Your task to perform on an android device: turn on location history Image 0: 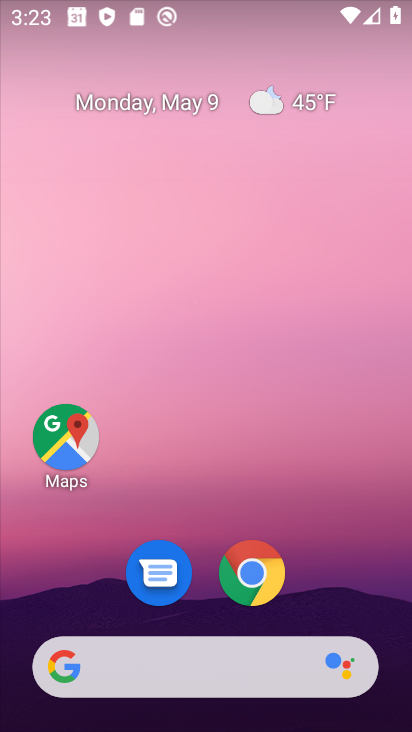
Step 0: drag from (263, 612) to (380, 210)
Your task to perform on an android device: turn on location history Image 1: 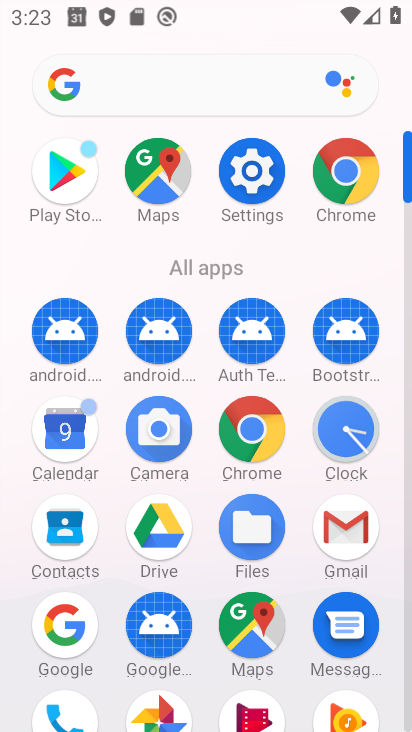
Step 1: click (236, 628)
Your task to perform on an android device: turn on location history Image 2: 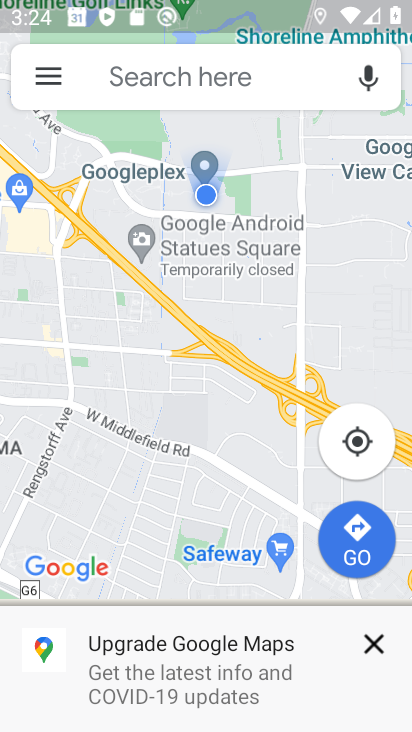
Step 2: click (46, 70)
Your task to perform on an android device: turn on location history Image 3: 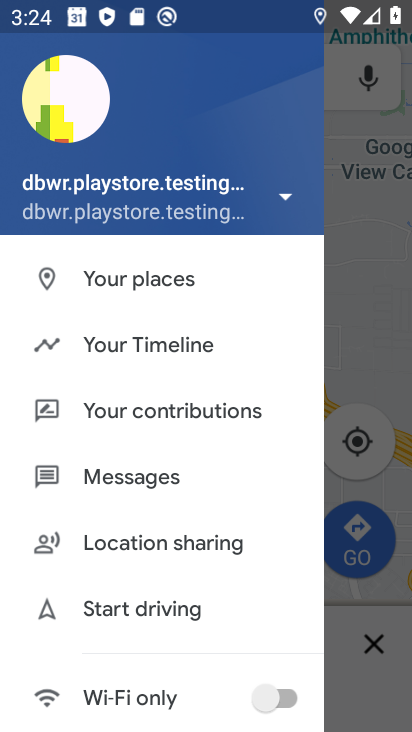
Step 3: drag from (172, 644) to (270, 250)
Your task to perform on an android device: turn on location history Image 4: 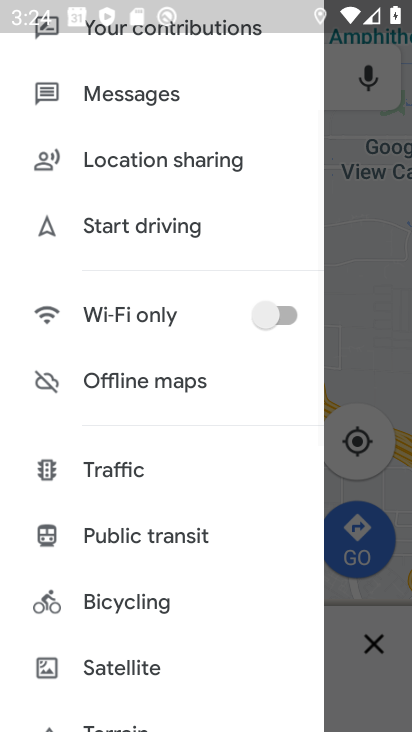
Step 4: drag from (125, 663) to (230, 269)
Your task to perform on an android device: turn on location history Image 5: 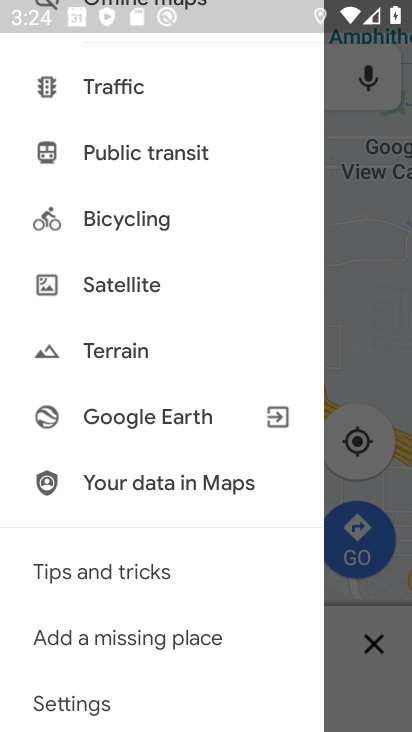
Step 5: click (90, 710)
Your task to perform on an android device: turn on location history Image 6: 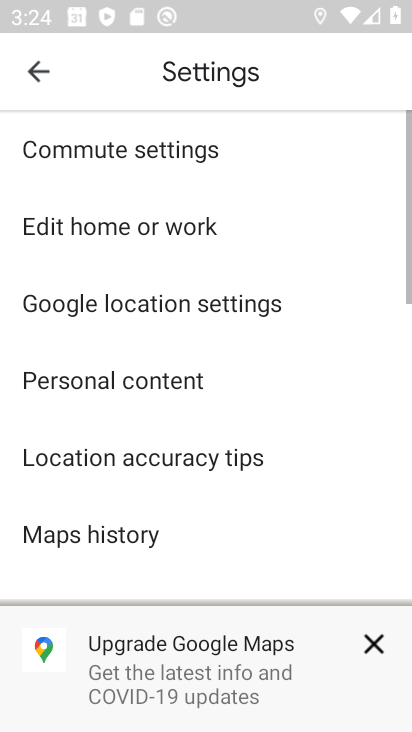
Step 6: drag from (167, 519) to (257, 199)
Your task to perform on an android device: turn on location history Image 7: 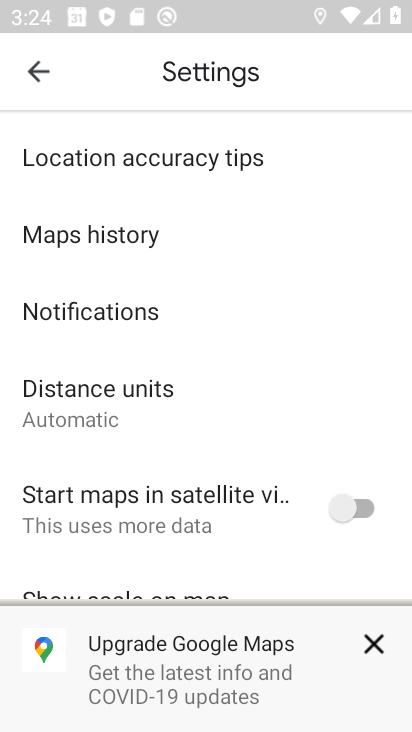
Step 7: click (376, 654)
Your task to perform on an android device: turn on location history Image 8: 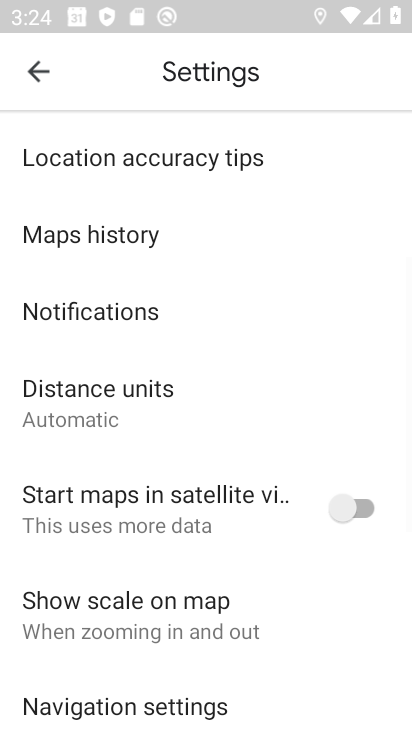
Step 8: click (50, 64)
Your task to perform on an android device: turn on location history Image 9: 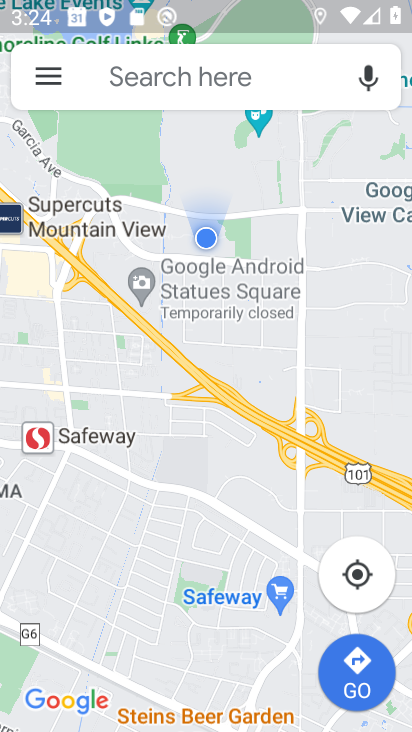
Step 9: click (50, 64)
Your task to perform on an android device: turn on location history Image 10: 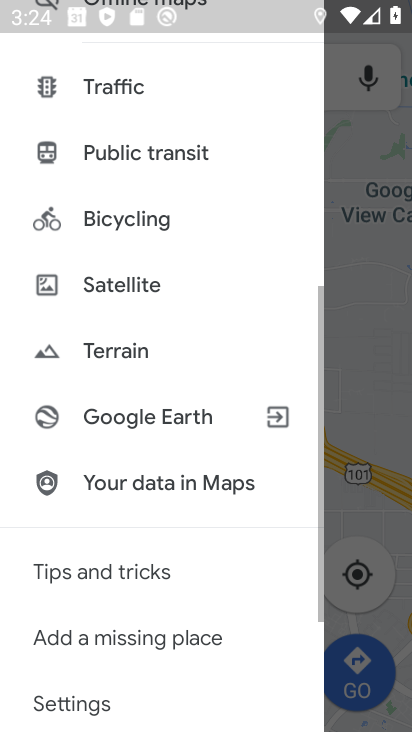
Step 10: drag from (171, 136) to (131, 731)
Your task to perform on an android device: turn on location history Image 11: 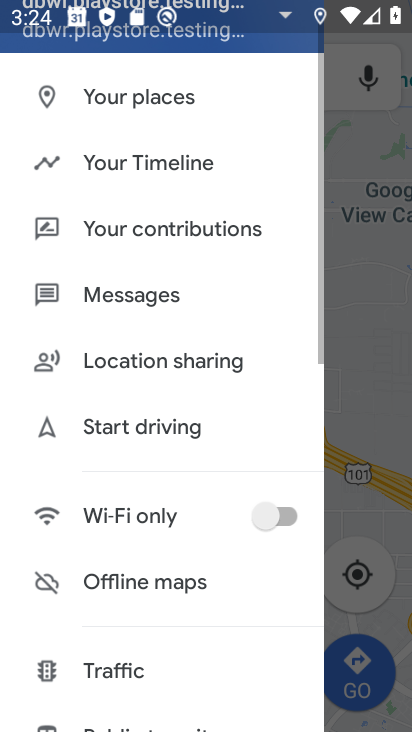
Step 11: click (139, 148)
Your task to perform on an android device: turn on location history Image 12: 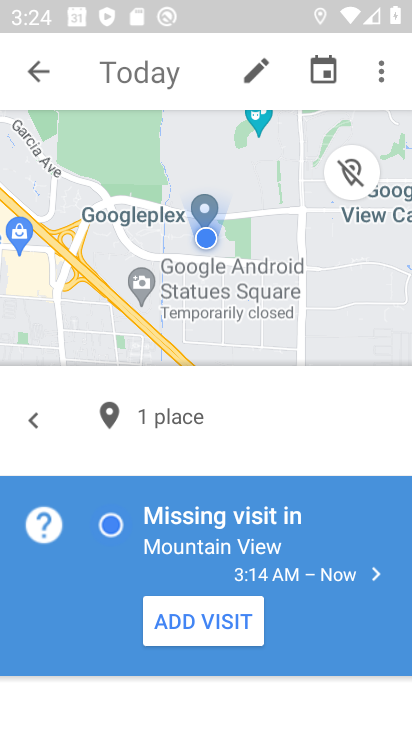
Step 12: click (386, 72)
Your task to perform on an android device: turn on location history Image 13: 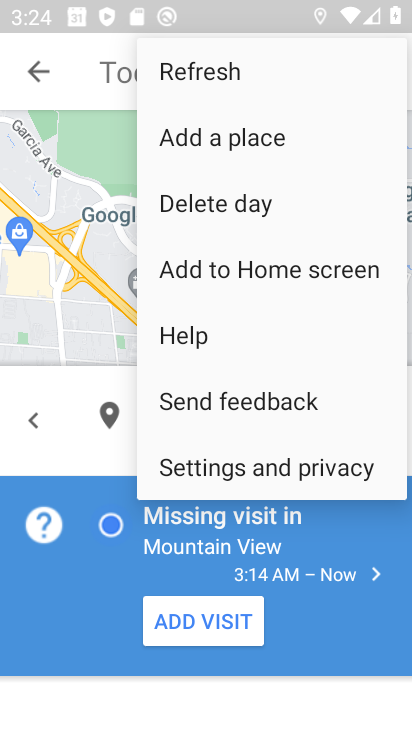
Step 13: click (314, 475)
Your task to perform on an android device: turn on location history Image 14: 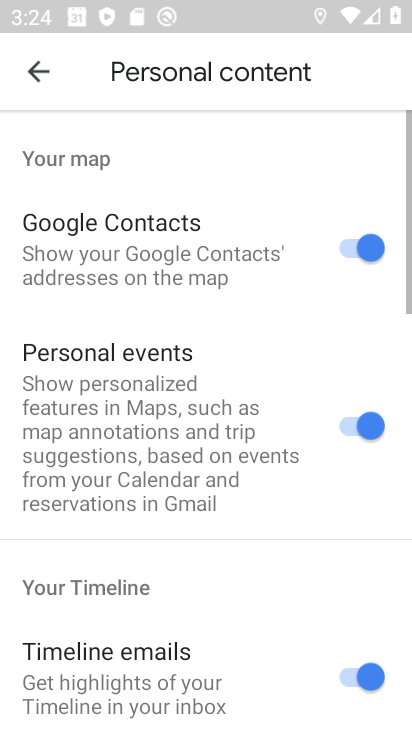
Step 14: drag from (49, 639) to (240, 87)
Your task to perform on an android device: turn on location history Image 15: 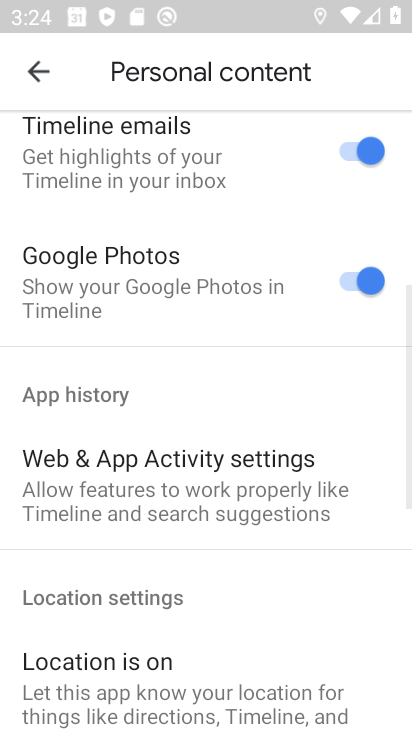
Step 15: drag from (93, 645) to (223, 288)
Your task to perform on an android device: turn on location history Image 16: 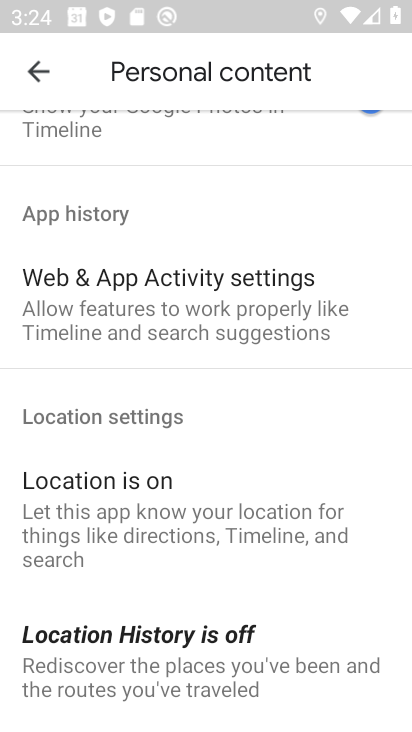
Step 16: click (128, 621)
Your task to perform on an android device: turn on location history Image 17: 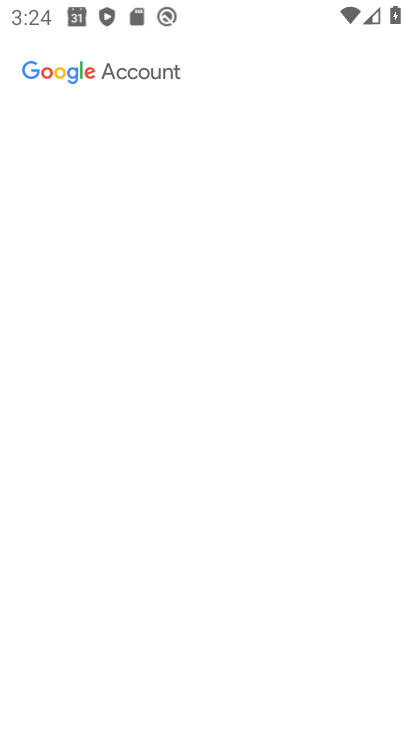
Step 17: drag from (131, 661) to (331, 73)
Your task to perform on an android device: turn on location history Image 18: 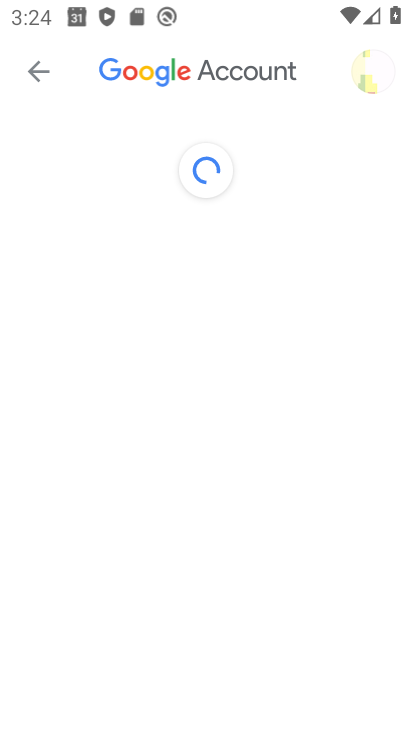
Step 18: drag from (181, 585) to (264, 82)
Your task to perform on an android device: turn on location history Image 19: 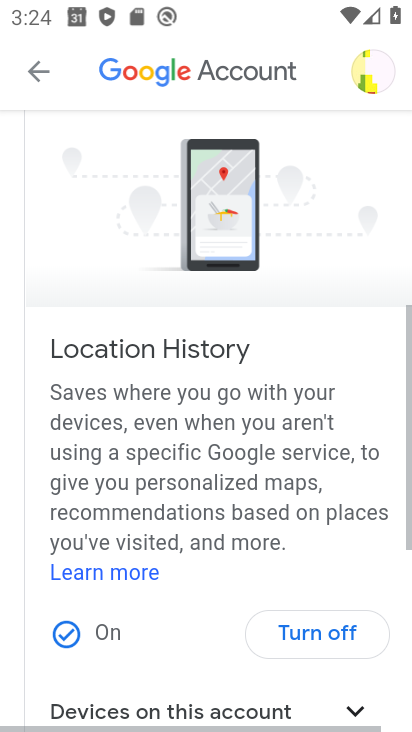
Step 19: drag from (139, 590) to (282, 139)
Your task to perform on an android device: turn on location history Image 20: 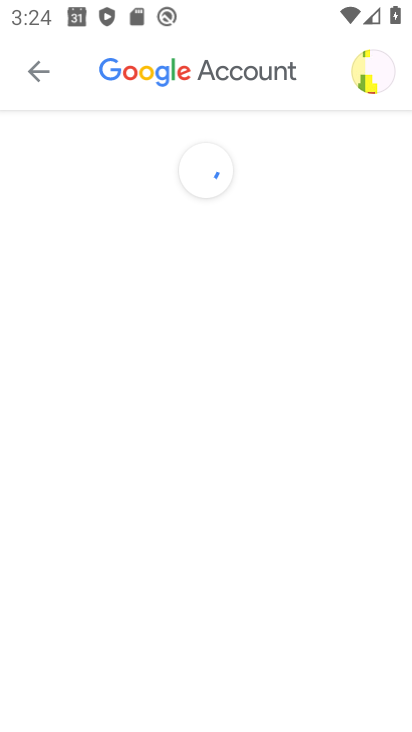
Step 20: drag from (144, 650) to (277, 199)
Your task to perform on an android device: turn on location history Image 21: 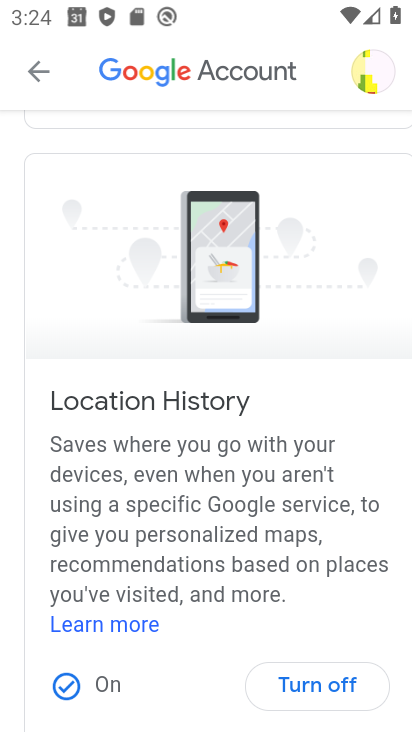
Step 21: click (89, 688)
Your task to perform on an android device: turn on location history Image 22: 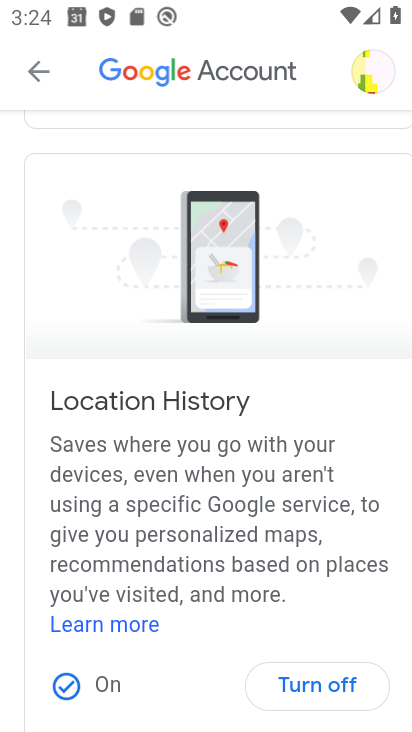
Step 22: click (295, 674)
Your task to perform on an android device: turn on location history Image 23: 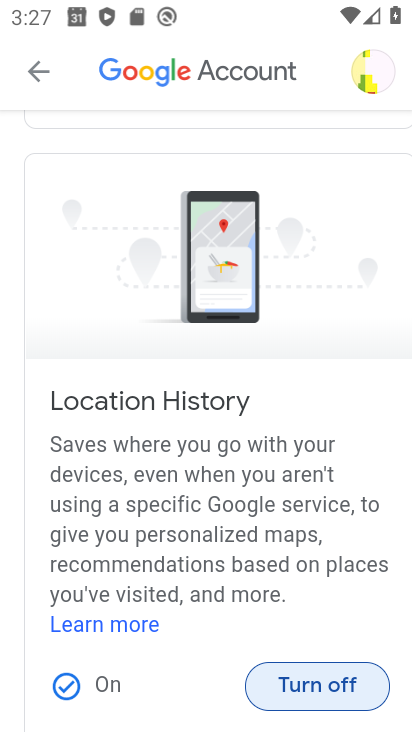
Step 23: task complete